Your task to perform on an android device: Show me popular games on the Play Store Image 0: 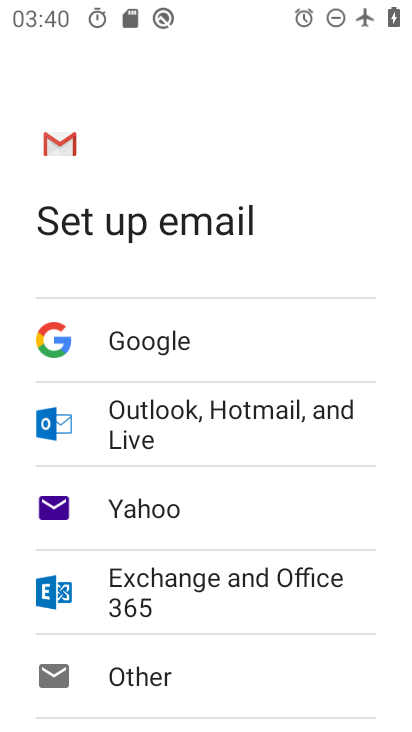
Step 0: press home button
Your task to perform on an android device: Show me popular games on the Play Store Image 1: 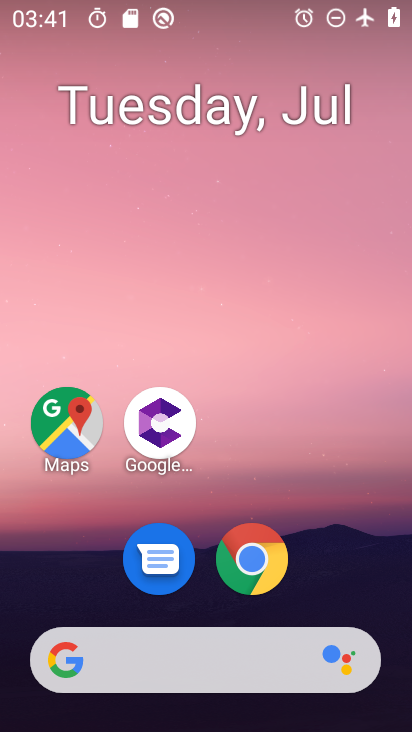
Step 1: drag from (358, 570) to (353, 261)
Your task to perform on an android device: Show me popular games on the Play Store Image 2: 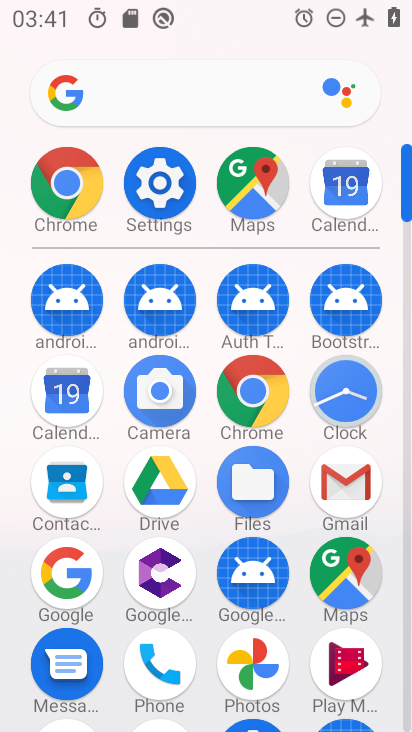
Step 2: drag from (386, 635) to (388, 415)
Your task to perform on an android device: Show me popular games on the Play Store Image 3: 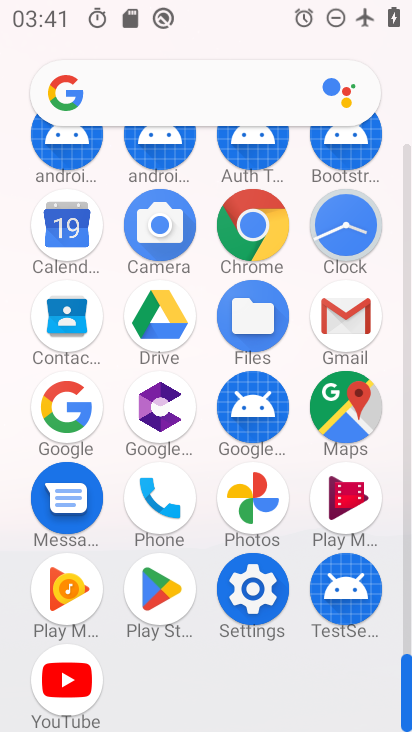
Step 3: click (176, 582)
Your task to perform on an android device: Show me popular games on the Play Store Image 4: 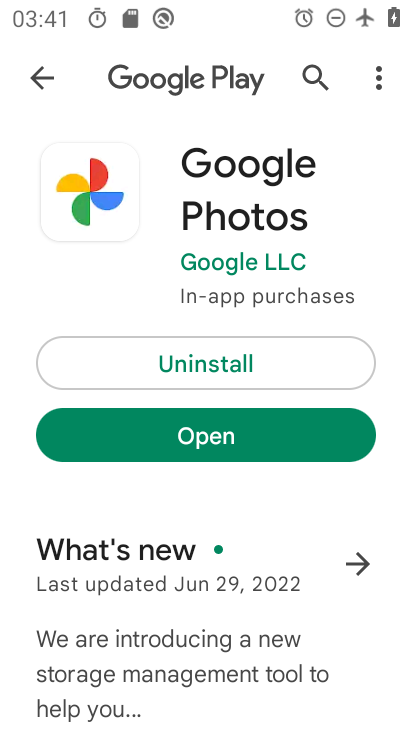
Step 4: press back button
Your task to perform on an android device: Show me popular games on the Play Store Image 5: 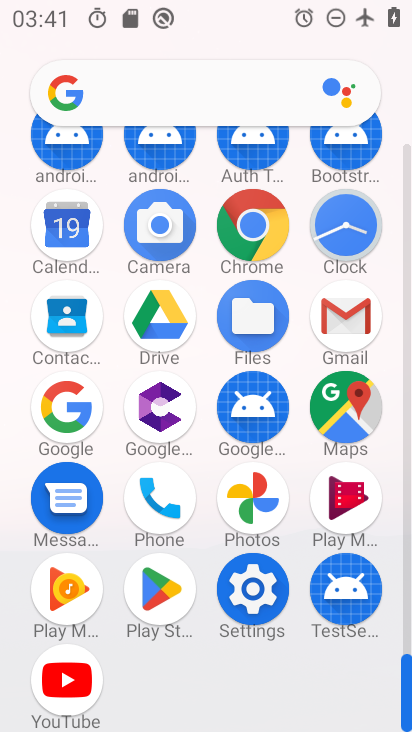
Step 5: click (171, 600)
Your task to perform on an android device: Show me popular games on the Play Store Image 6: 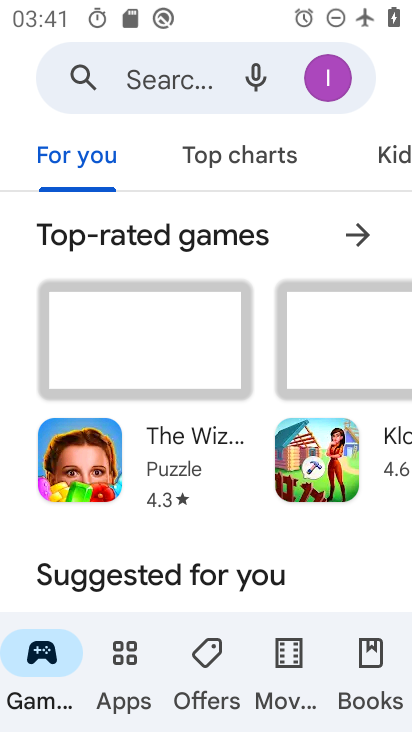
Step 6: task complete